Your task to perform on an android device: set an alarm Image 0: 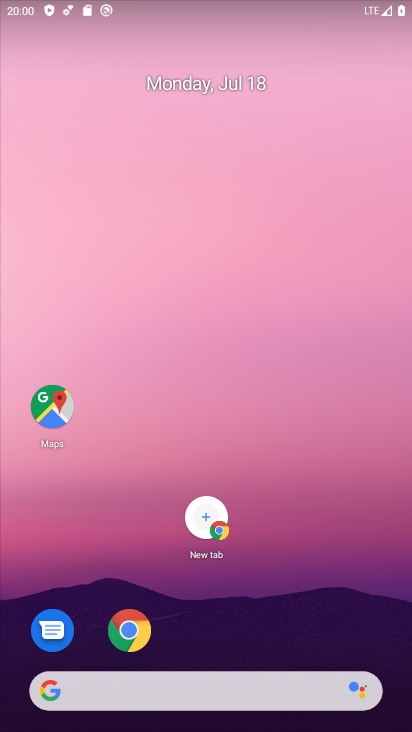
Step 0: drag from (223, 676) to (279, 230)
Your task to perform on an android device: set an alarm Image 1: 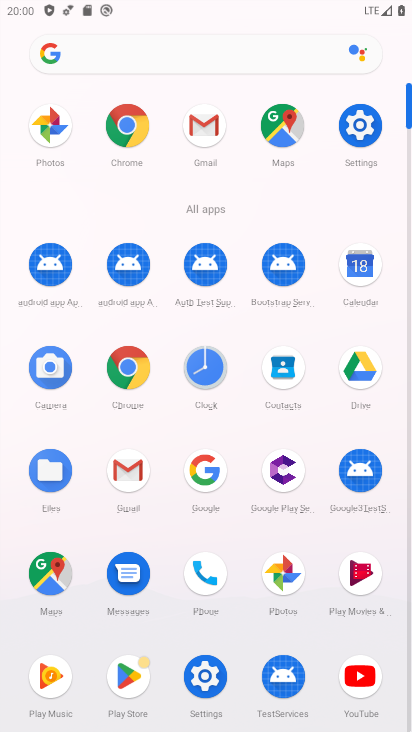
Step 1: click (205, 365)
Your task to perform on an android device: set an alarm Image 2: 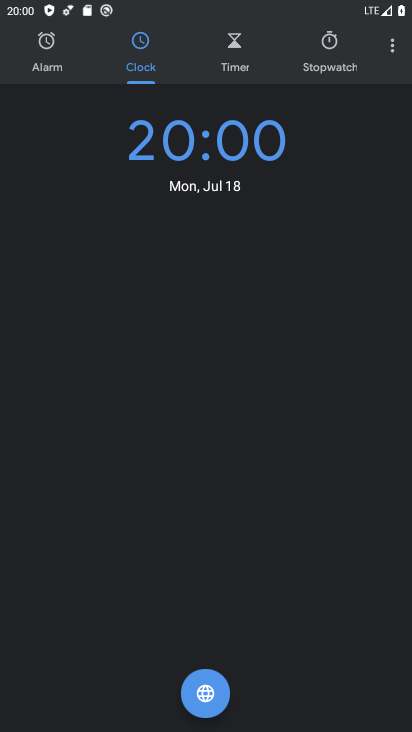
Step 2: click (53, 53)
Your task to perform on an android device: set an alarm Image 3: 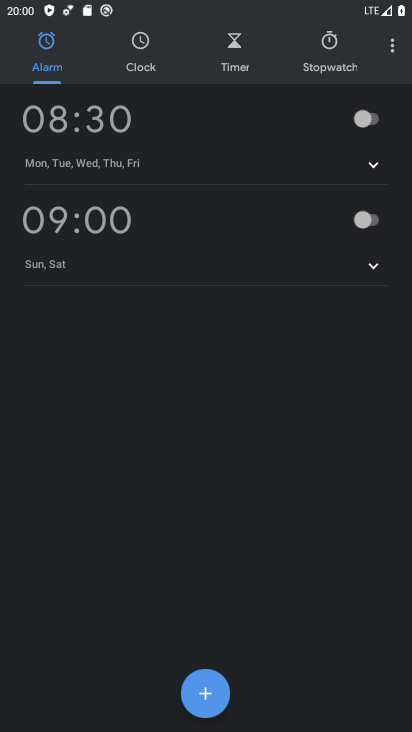
Step 3: click (215, 690)
Your task to perform on an android device: set an alarm Image 4: 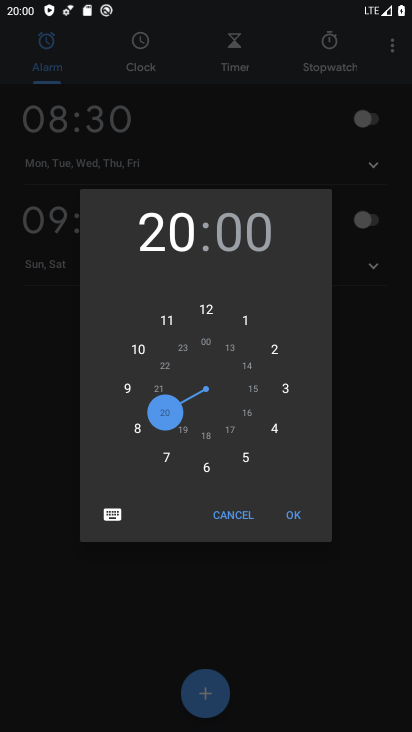
Step 4: click (205, 466)
Your task to perform on an android device: set an alarm Image 5: 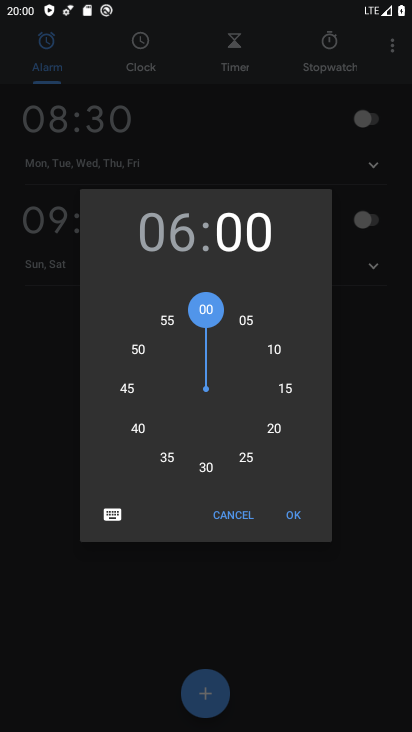
Step 5: click (291, 520)
Your task to perform on an android device: set an alarm Image 6: 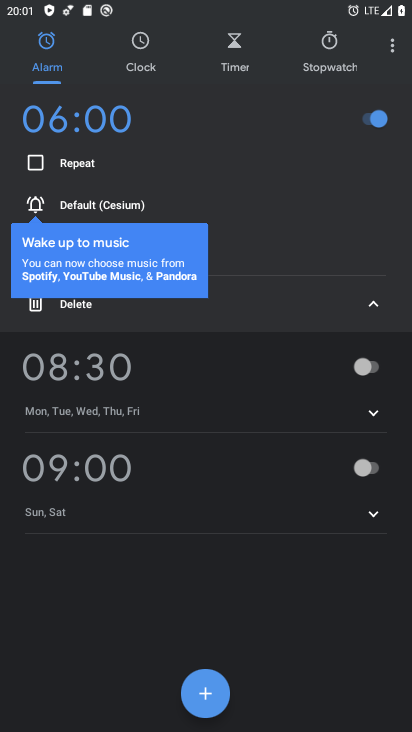
Step 6: task complete